Your task to perform on an android device: Open network settings Image 0: 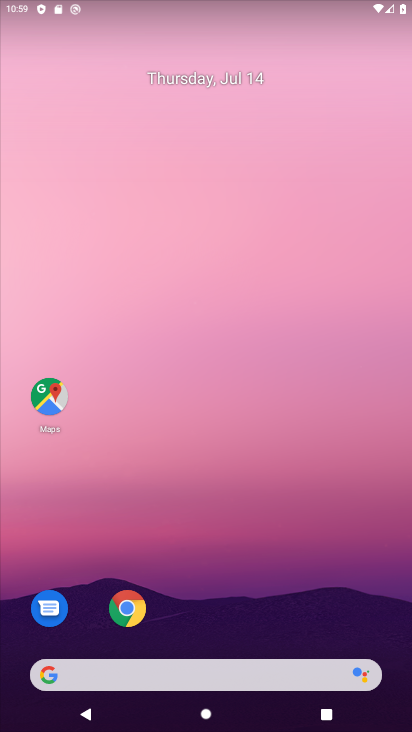
Step 0: press home button
Your task to perform on an android device: Open network settings Image 1: 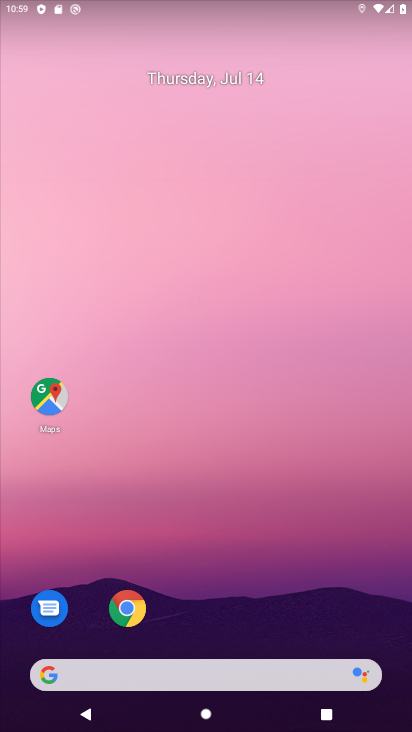
Step 1: drag from (260, 602) to (272, 296)
Your task to perform on an android device: Open network settings Image 2: 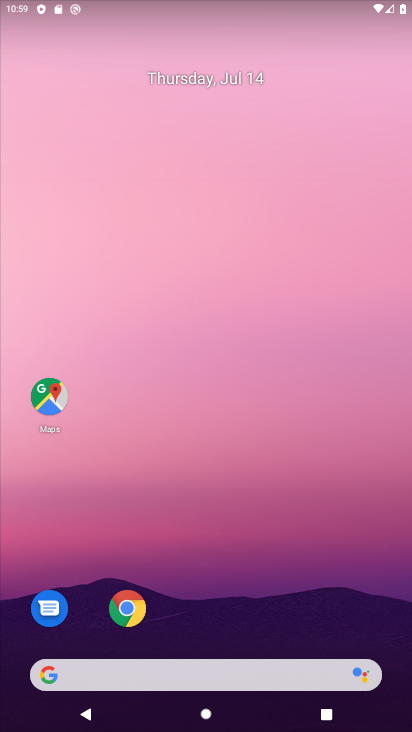
Step 2: drag from (284, 637) to (289, 208)
Your task to perform on an android device: Open network settings Image 3: 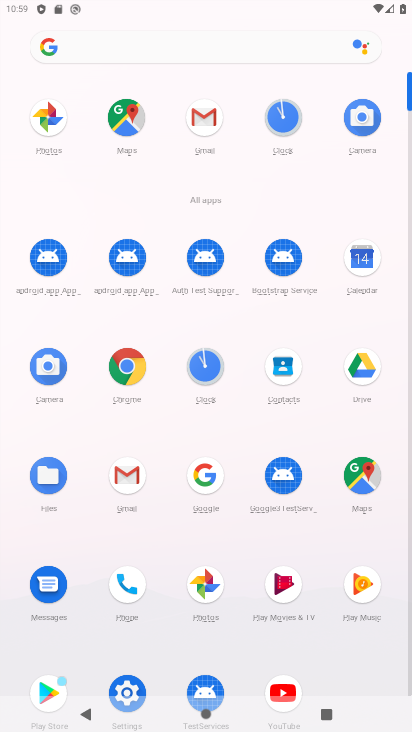
Step 3: click (122, 675)
Your task to perform on an android device: Open network settings Image 4: 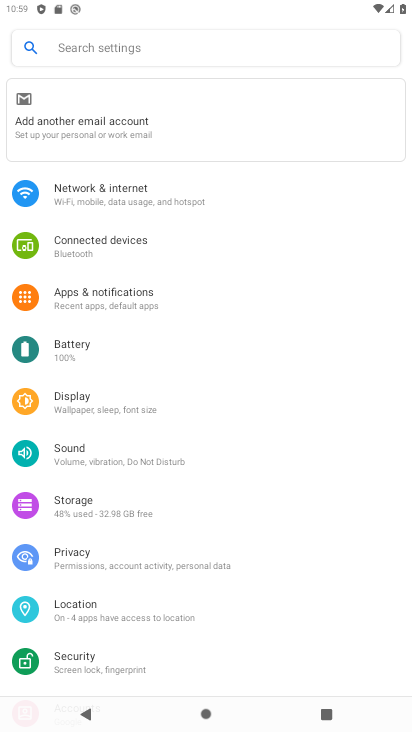
Step 4: click (126, 190)
Your task to perform on an android device: Open network settings Image 5: 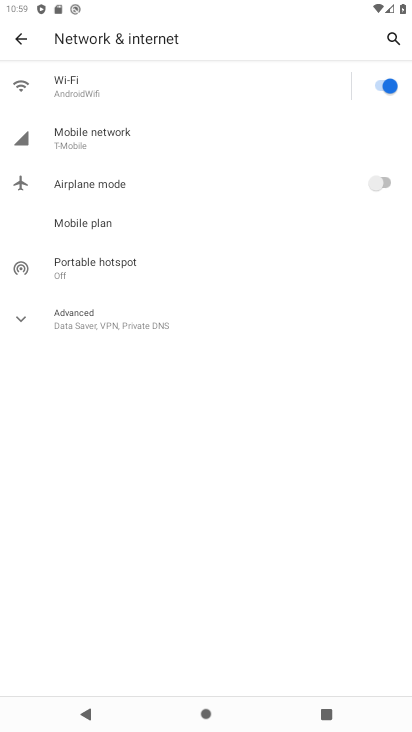
Step 5: task complete